Your task to perform on an android device: Go to Yahoo.com Image 0: 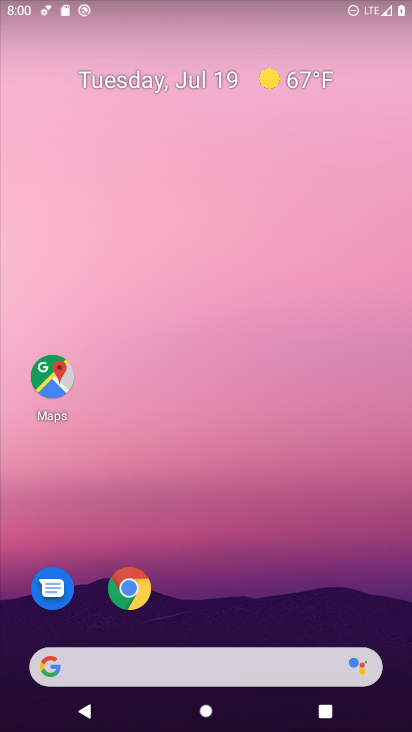
Step 0: drag from (314, 620) to (342, 121)
Your task to perform on an android device: Go to Yahoo.com Image 1: 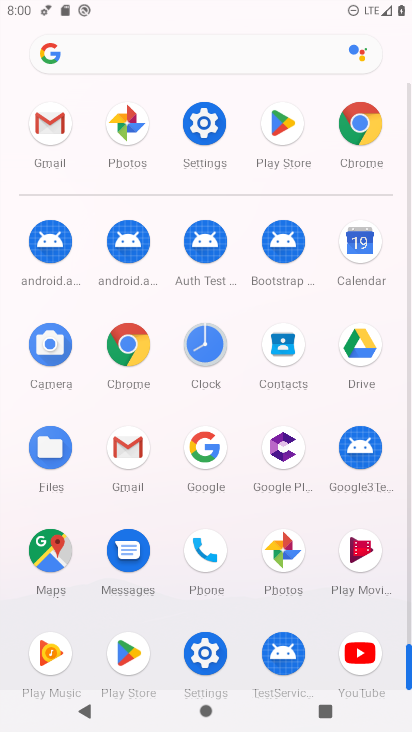
Step 1: click (141, 344)
Your task to perform on an android device: Go to Yahoo.com Image 2: 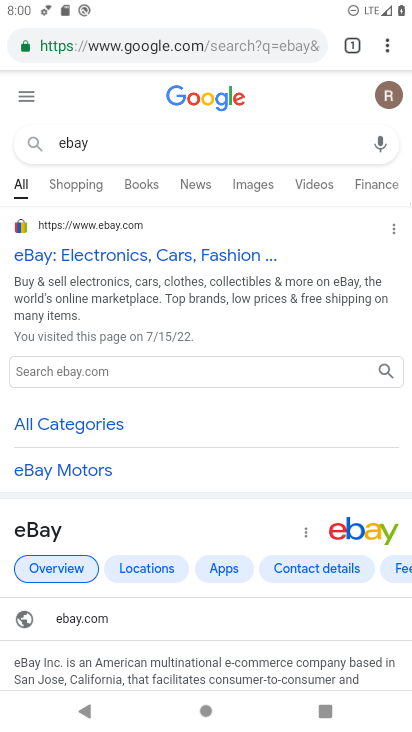
Step 2: click (221, 48)
Your task to perform on an android device: Go to Yahoo.com Image 3: 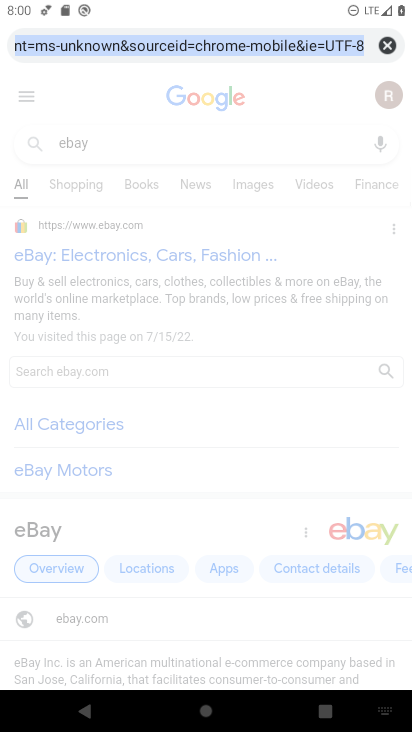
Step 3: type "yahoo.com"
Your task to perform on an android device: Go to Yahoo.com Image 4: 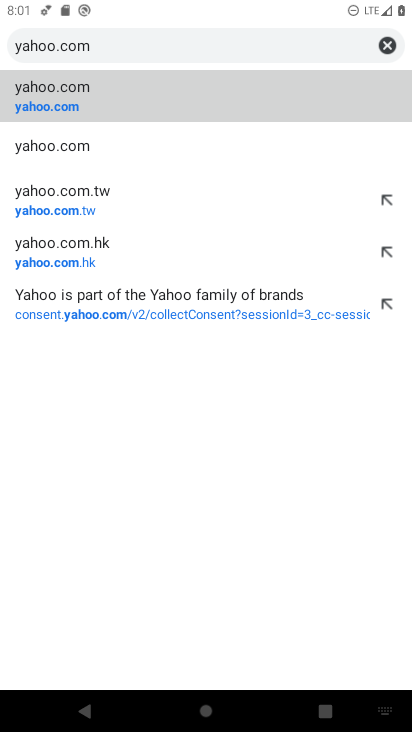
Step 4: click (97, 100)
Your task to perform on an android device: Go to Yahoo.com Image 5: 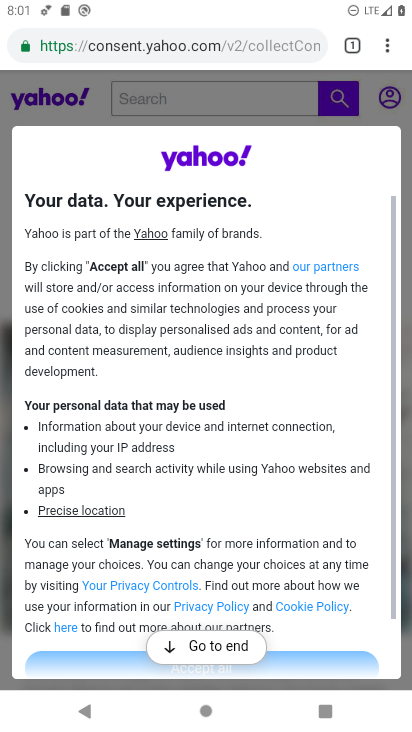
Step 5: task complete